Your task to perform on an android device: Open Android settings Image 0: 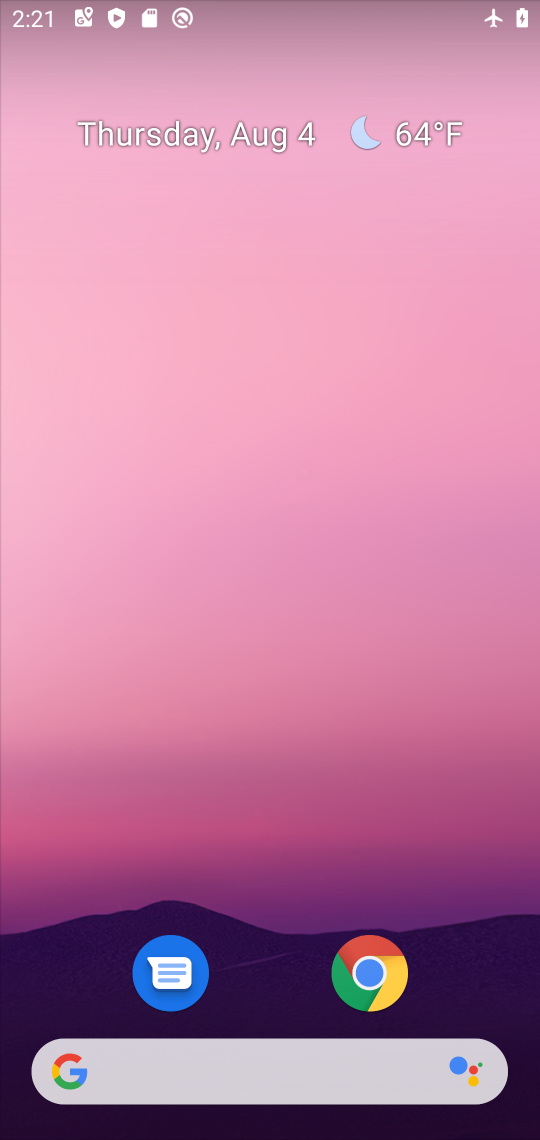
Step 0: drag from (307, 1015) to (285, 23)
Your task to perform on an android device: Open Android settings Image 1: 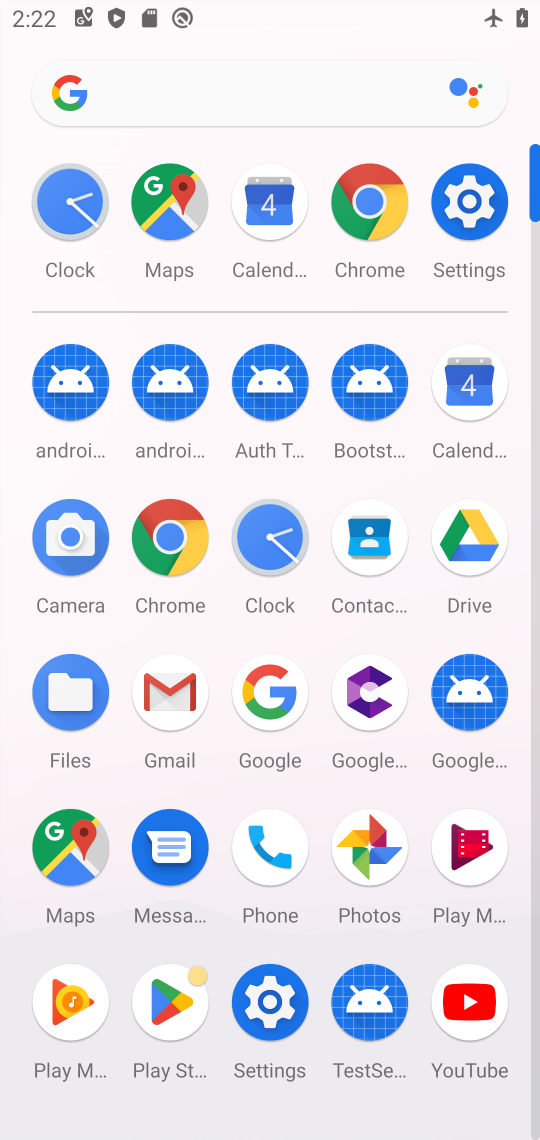
Step 1: click (458, 199)
Your task to perform on an android device: Open Android settings Image 2: 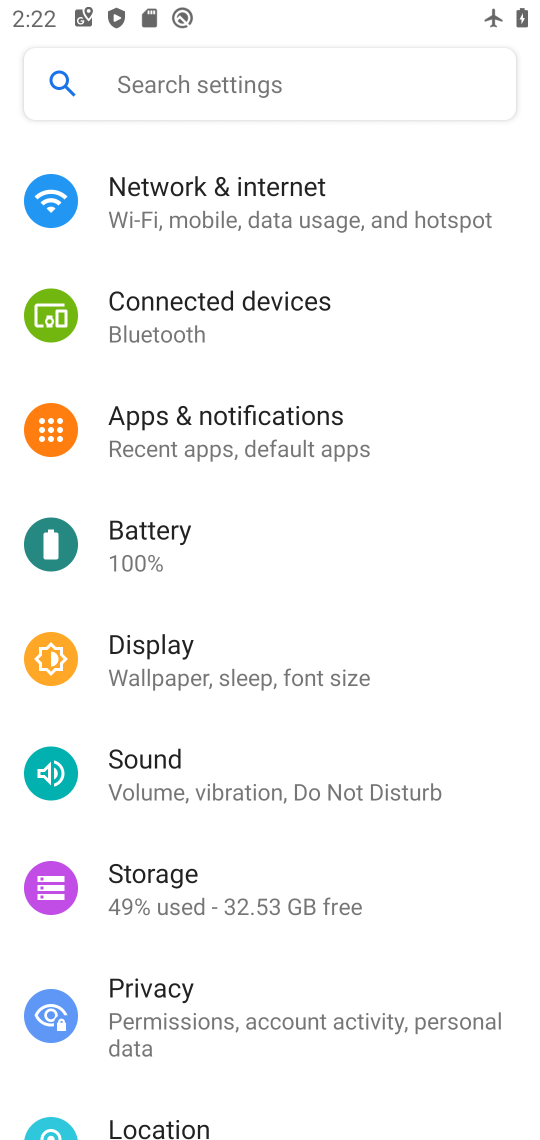
Step 2: task complete